Your task to perform on an android device: Open my contact list Image 0: 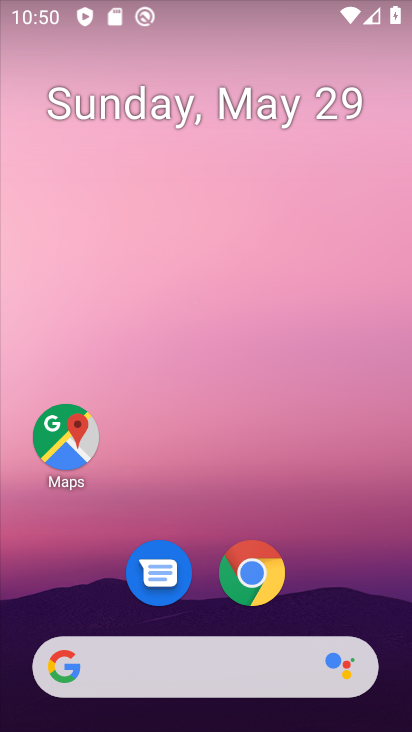
Step 0: drag from (363, 605) to (283, 201)
Your task to perform on an android device: Open my contact list Image 1: 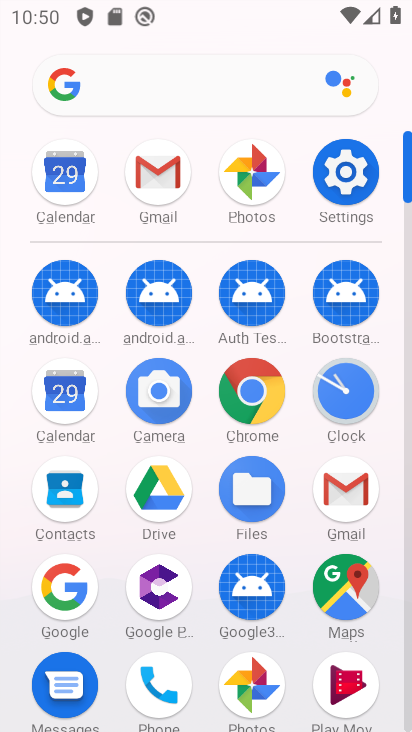
Step 1: click (63, 500)
Your task to perform on an android device: Open my contact list Image 2: 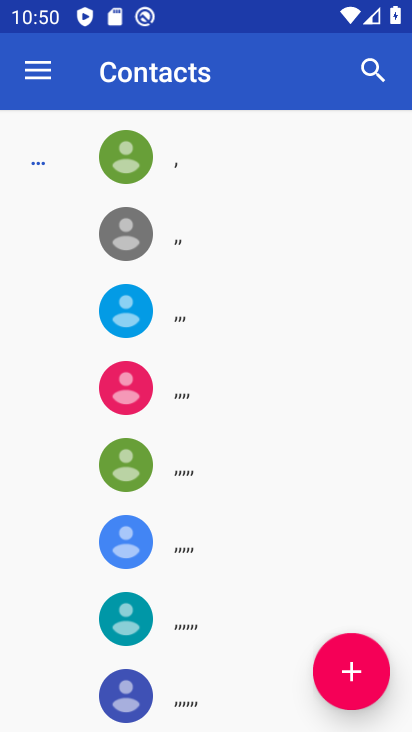
Step 2: task complete